Your task to perform on an android device: turn pop-ups off in chrome Image 0: 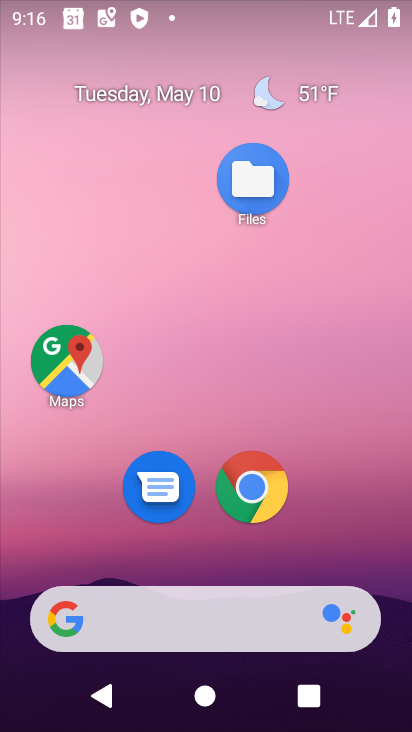
Step 0: click (252, 490)
Your task to perform on an android device: turn pop-ups off in chrome Image 1: 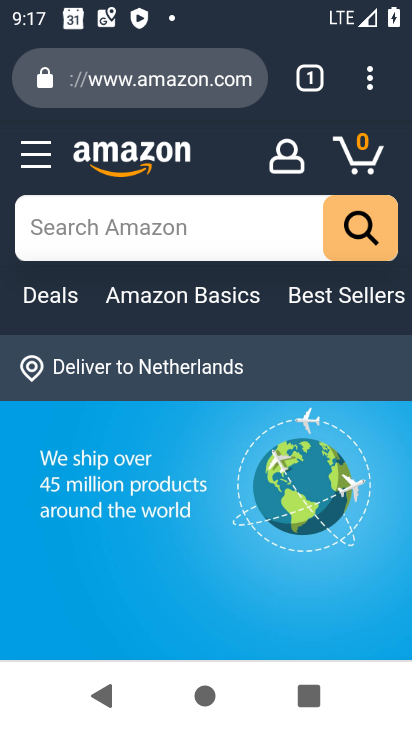
Step 1: click (360, 70)
Your task to perform on an android device: turn pop-ups off in chrome Image 2: 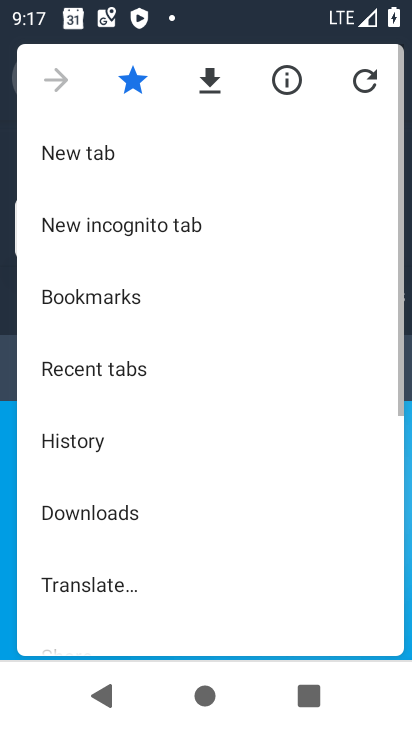
Step 2: drag from (220, 566) to (227, 121)
Your task to perform on an android device: turn pop-ups off in chrome Image 3: 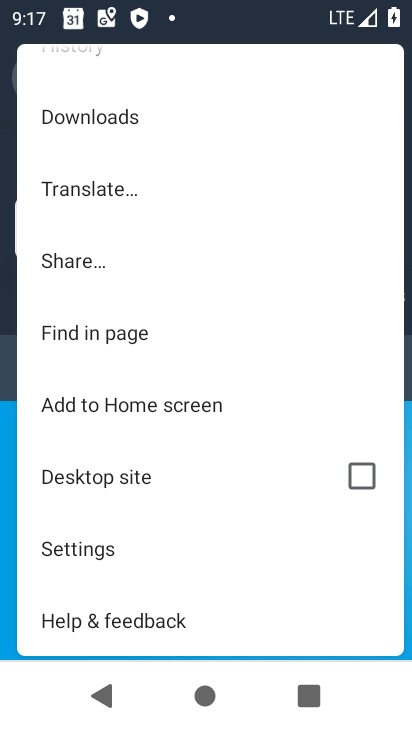
Step 3: click (154, 549)
Your task to perform on an android device: turn pop-ups off in chrome Image 4: 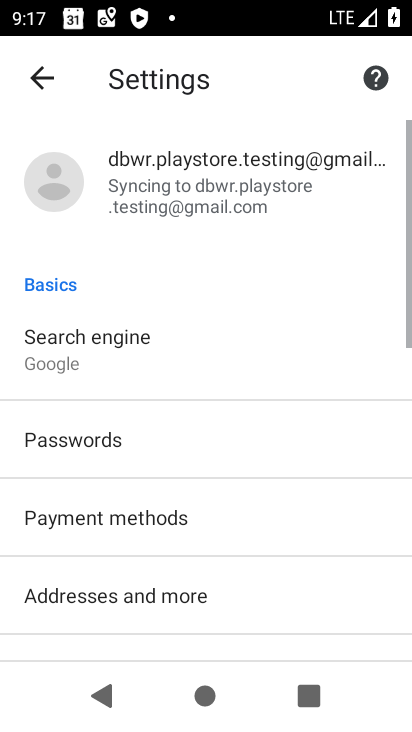
Step 4: drag from (168, 593) to (176, 8)
Your task to perform on an android device: turn pop-ups off in chrome Image 5: 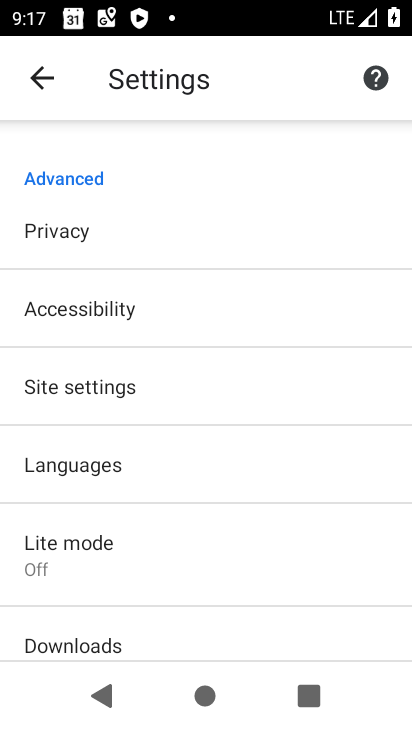
Step 5: drag from (99, 568) to (84, 242)
Your task to perform on an android device: turn pop-ups off in chrome Image 6: 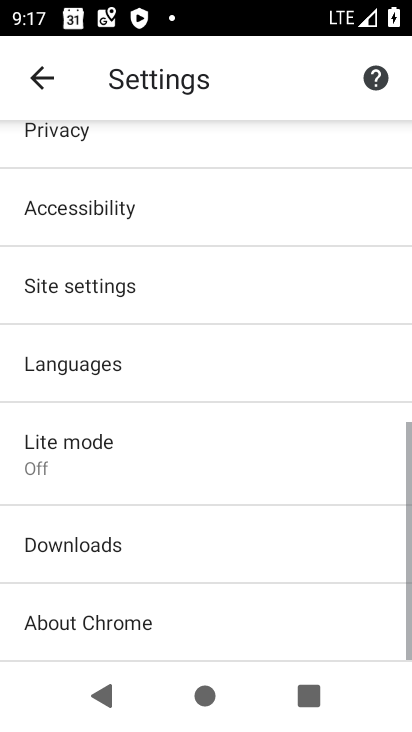
Step 6: click (126, 296)
Your task to perform on an android device: turn pop-ups off in chrome Image 7: 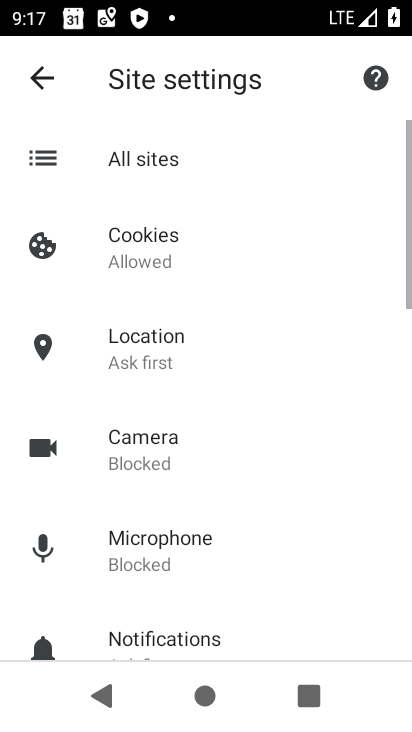
Step 7: drag from (222, 607) to (207, 86)
Your task to perform on an android device: turn pop-ups off in chrome Image 8: 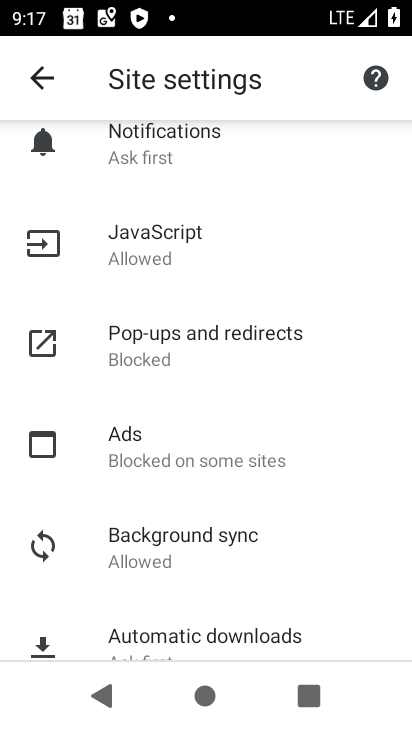
Step 8: click (172, 357)
Your task to perform on an android device: turn pop-ups off in chrome Image 9: 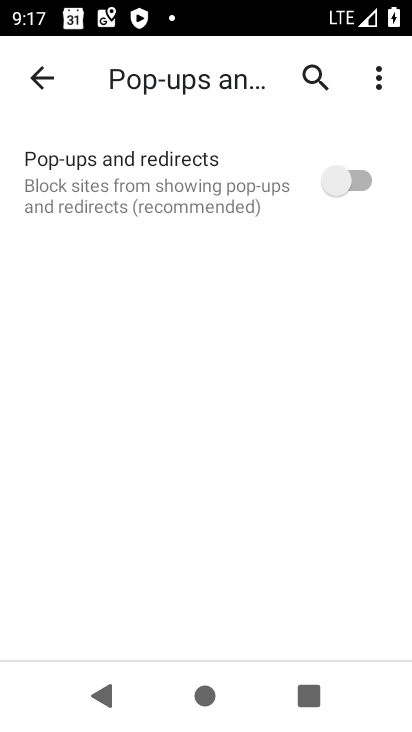
Step 9: task complete